Your task to perform on an android device: turn on priority inbox in the gmail app Image 0: 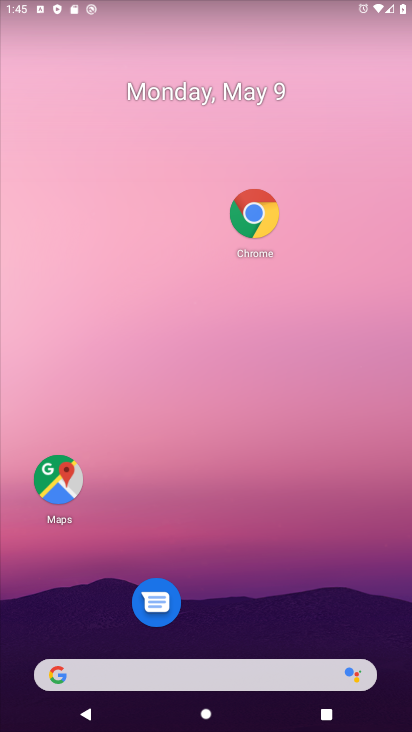
Step 0: drag from (289, 605) to (296, 3)
Your task to perform on an android device: turn on priority inbox in the gmail app Image 1: 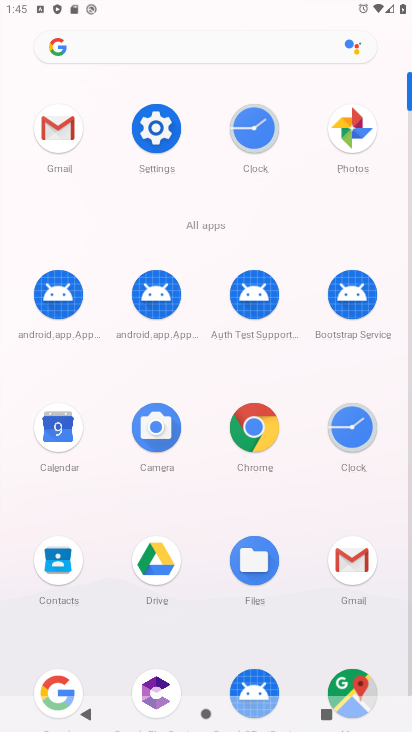
Step 1: click (31, 165)
Your task to perform on an android device: turn on priority inbox in the gmail app Image 2: 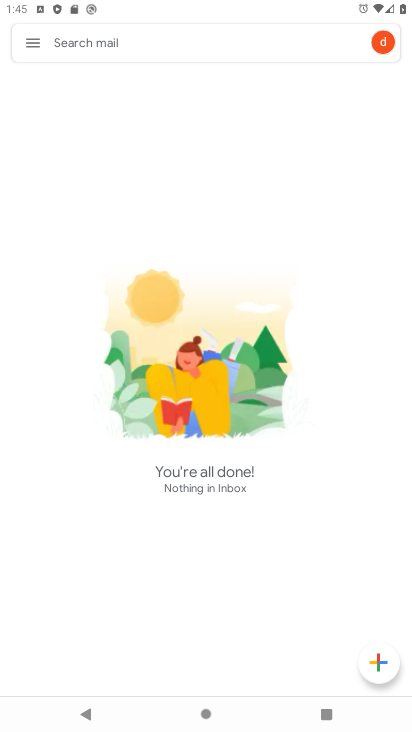
Step 2: click (36, 44)
Your task to perform on an android device: turn on priority inbox in the gmail app Image 3: 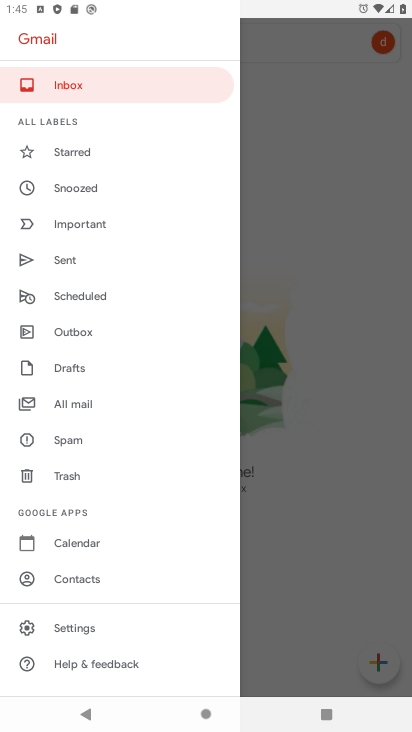
Step 3: click (111, 628)
Your task to perform on an android device: turn on priority inbox in the gmail app Image 4: 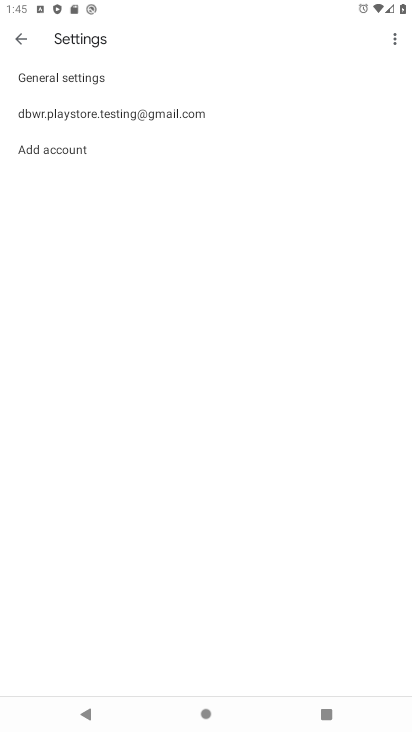
Step 4: click (105, 112)
Your task to perform on an android device: turn on priority inbox in the gmail app Image 5: 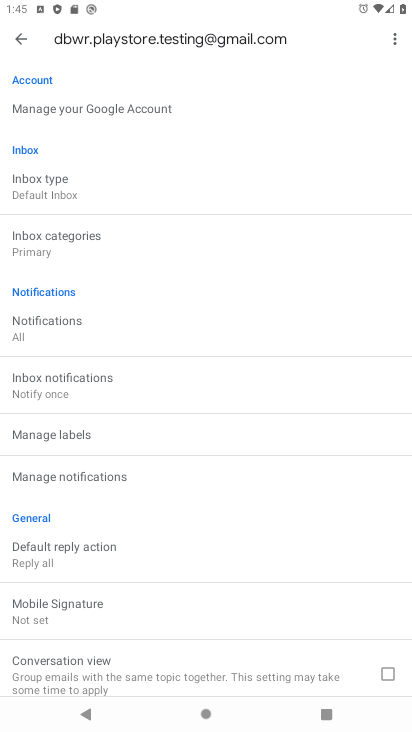
Step 5: click (114, 389)
Your task to perform on an android device: turn on priority inbox in the gmail app Image 6: 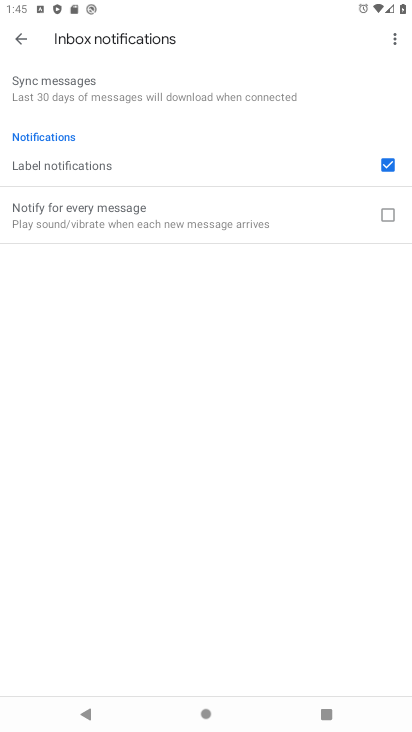
Step 6: click (29, 41)
Your task to perform on an android device: turn on priority inbox in the gmail app Image 7: 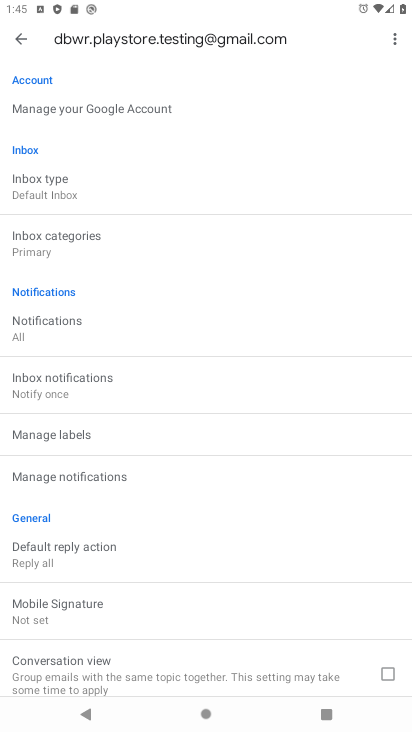
Step 7: click (166, 395)
Your task to perform on an android device: turn on priority inbox in the gmail app Image 8: 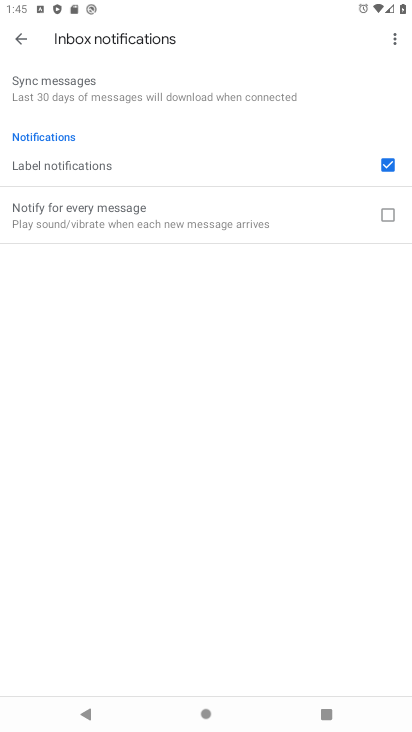
Step 8: click (20, 43)
Your task to perform on an android device: turn on priority inbox in the gmail app Image 9: 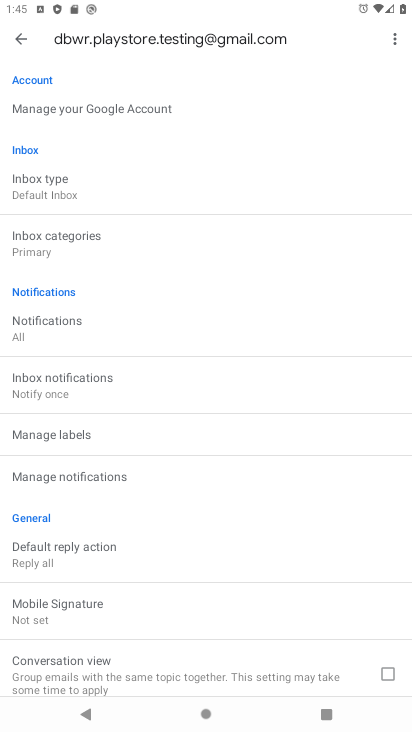
Step 9: click (98, 198)
Your task to perform on an android device: turn on priority inbox in the gmail app Image 10: 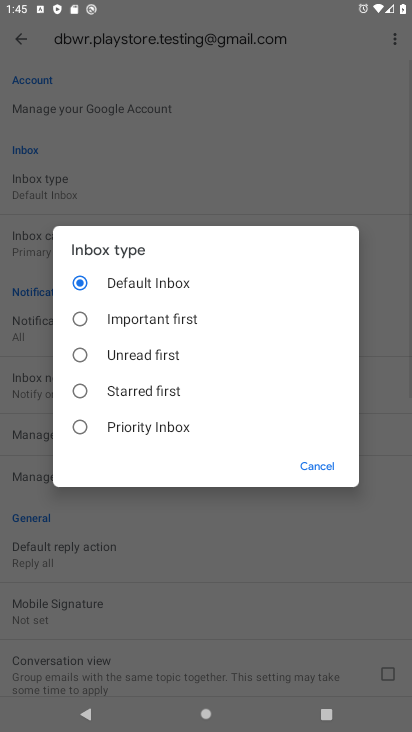
Step 10: click (174, 424)
Your task to perform on an android device: turn on priority inbox in the gmail app Image 11: 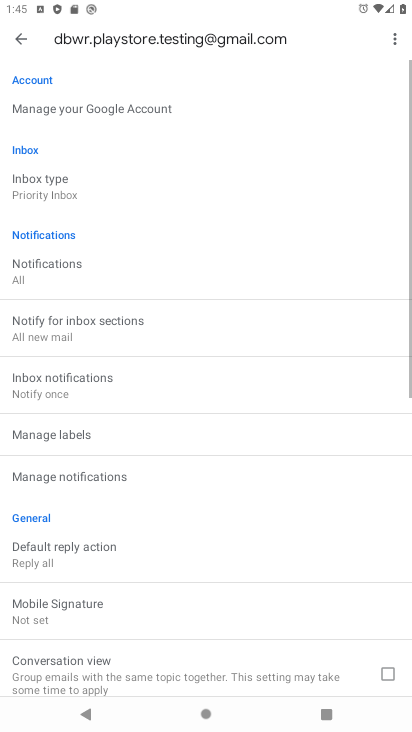
Step 11: task complete